Your task to perform on an android device: Is it going to rain today? Image 0: 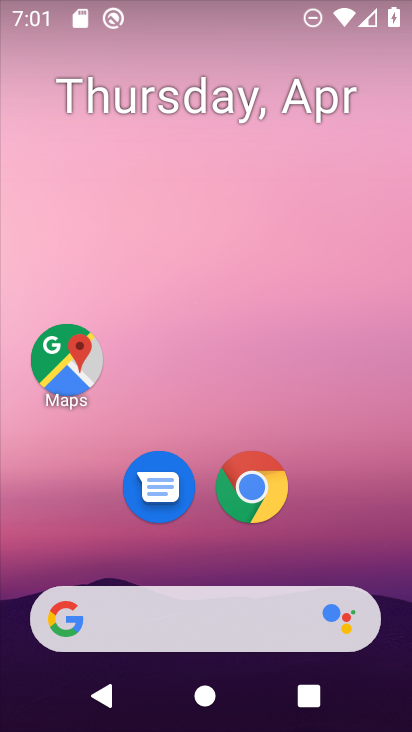
Step 0: drag from (341, 532) to (407, 111)
Your task to perform on an android device: Is it going to rain today? Image 1: 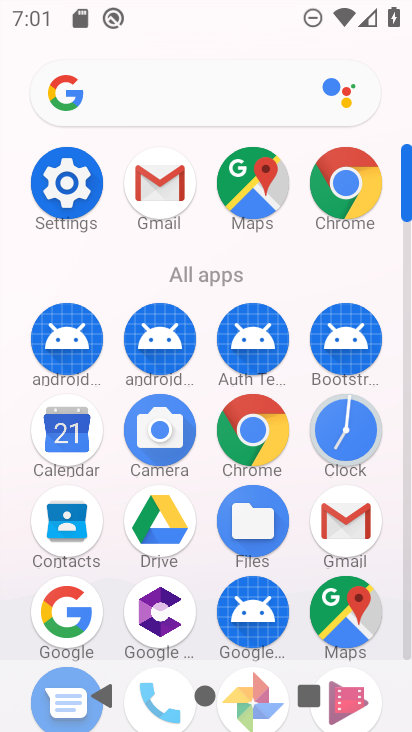
Step 1: click (249, 430)
Your task to perform on an android device: Is it going to rain today? Image 2: 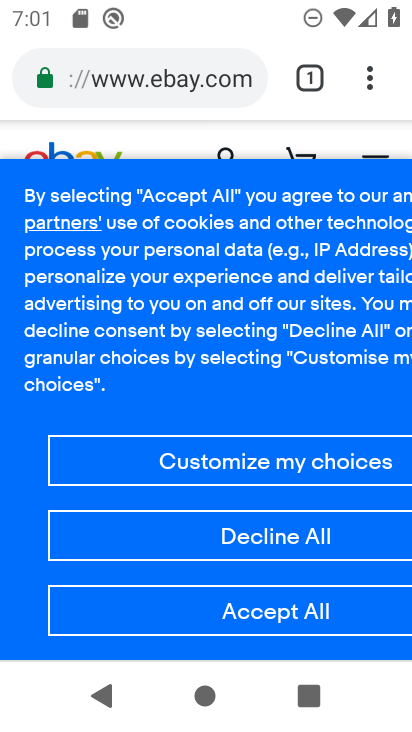
Step 2: drag from (368, 69) to (88, 153)
Your task to perform on an android device: Is it going to rain today? Image 3: 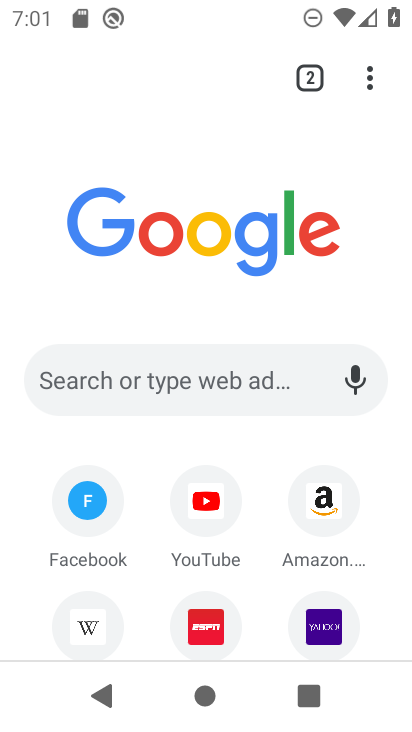
Step 3: click (186, 382)
Your task to perform on an android device: Is it going to rain today? Image 4: 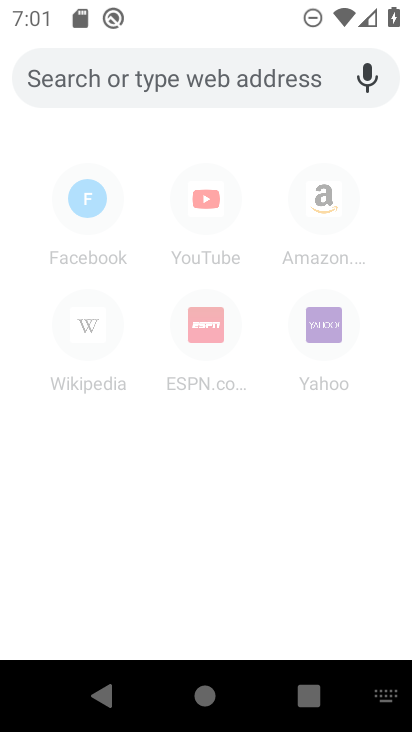
Step 4: type "Is it going to rain today?"
Your task to perform on an android device: Is it going to rain today? Image 5: 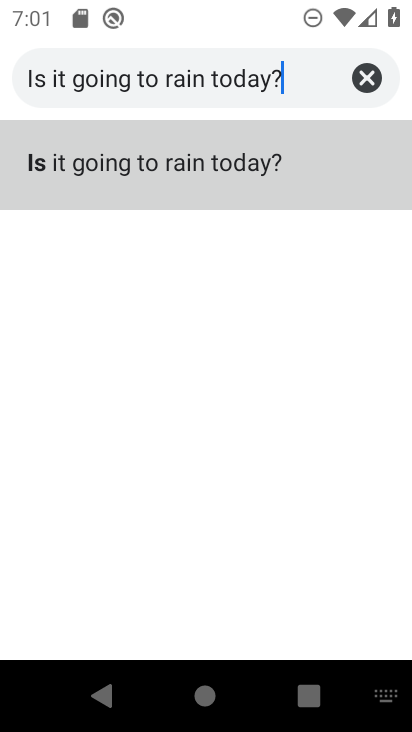
Step 5: click (138, 155)
Your task to perform on an android device: Is it going to rain today? Image 6: 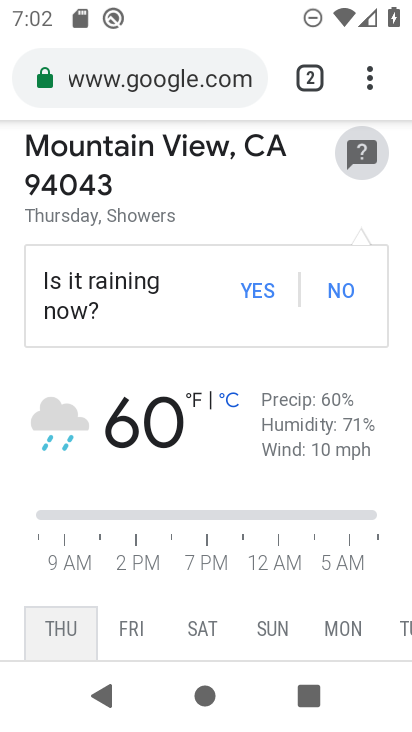
Step 6: task complete